Your task to perform on an android device: allow cookies in the chrome app Image 0: 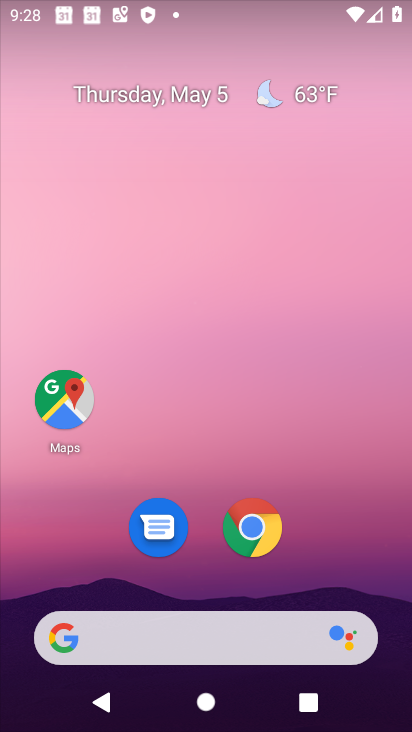
Step 0: click (262, 528)
Your task to perform on an android device: allow cookies in the chrome app Image 1: 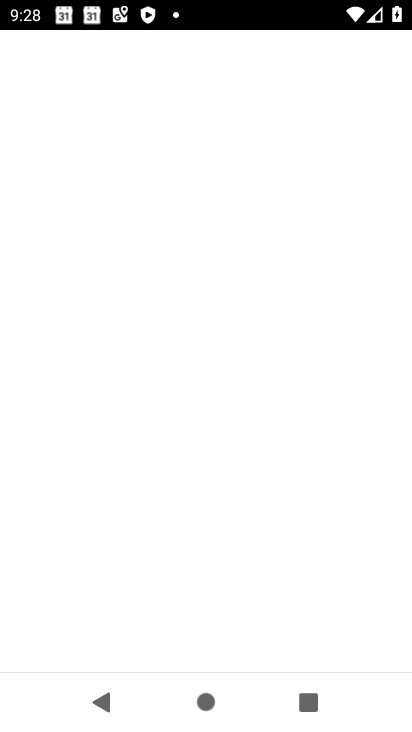
Step 1: click (262, 528)
Your task to perform on an android device: allow cookies in the chrome app Image 2: 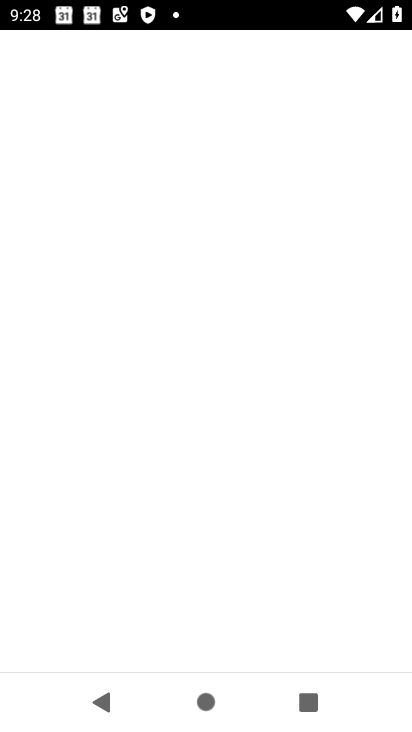
Step 2: click (262, 528)
Your task to perform on an android device: allow cookies in the chrome app Image 3: 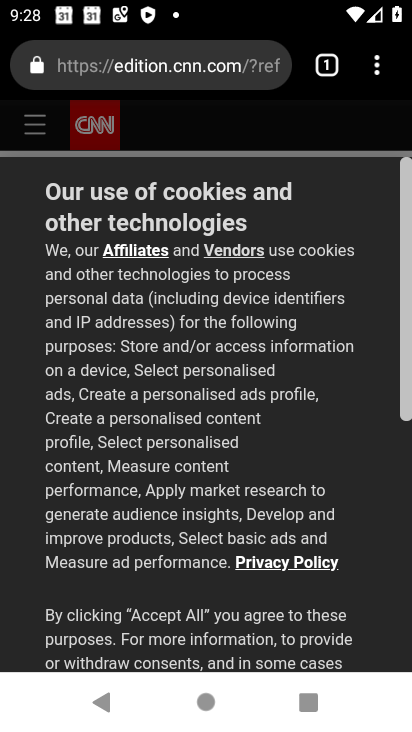
Step 3: click (381, 70)
Your task to perform on an android device: allow cookies in the chrome app Image 4: 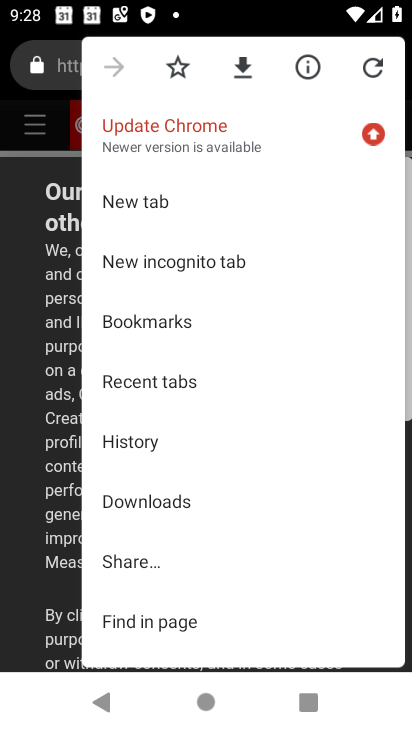
Step 4: drag from (300, 588) to (331, 77)
Your task to perform on an android device: allow cookies in the chrome app Image 5: 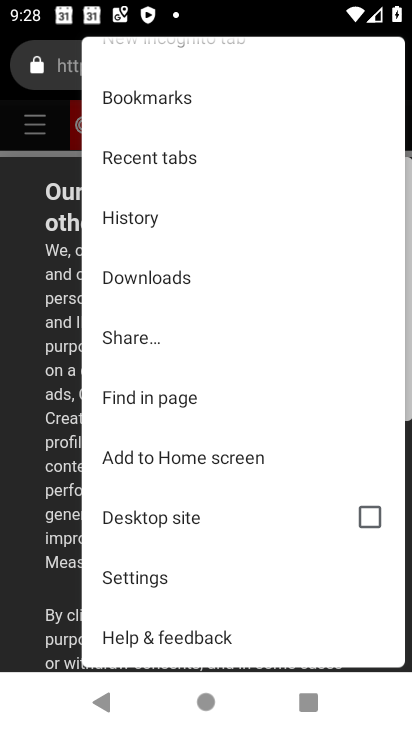
Step 5: click (145, 587)
Your task to perform on an android device: allow cookies in the chrome app Image 6: 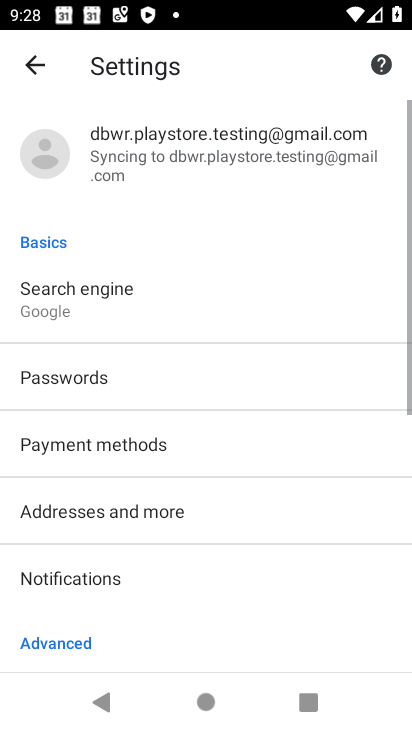
Step 6: drag from (236, 632) to (265, 82)
Your task to perform on an android device: allow cookies in the chrome app Image 7: 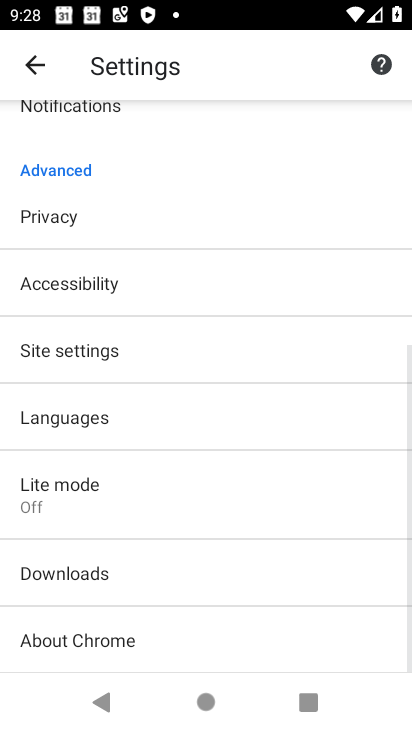
Step 7: click (142, 356)
Your task to perform on an android device: allow cookies in the chrome app Image 8: 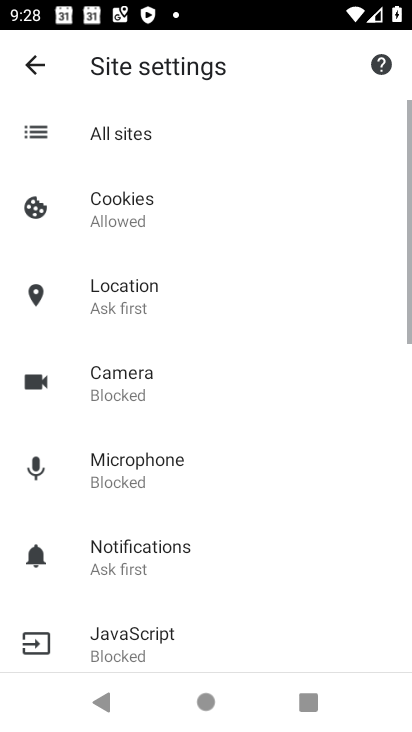
Step 8: click (137, 214)
Your task to perform on an android device: allow cookies in the chrome app Image 9: 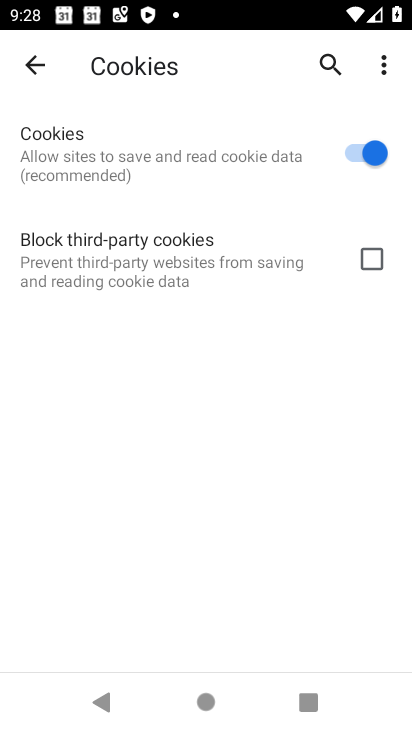
Step 9: task complete